Your task to perform on an android device: Open Amazon Image 0: 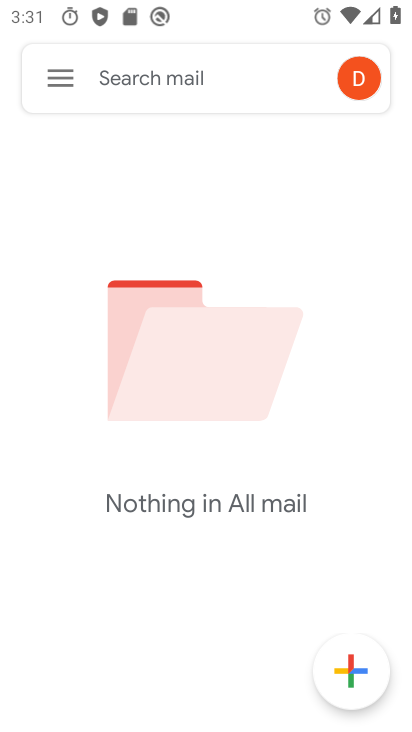
Step 0: press home button
Your task to perform on an android device: Open Amazon Image 1: 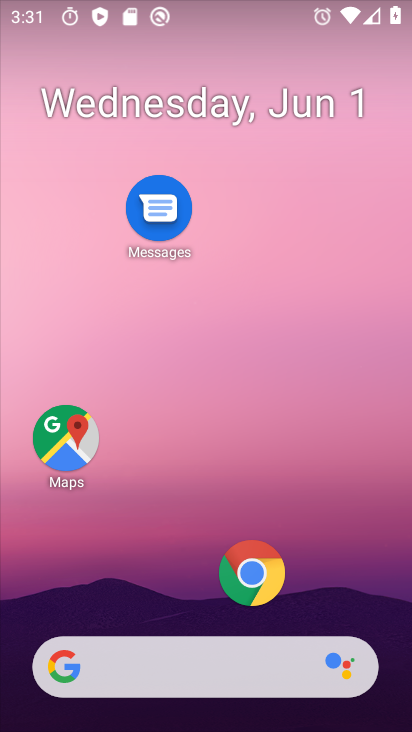
Step 1: click (251, 581)
Your task to perform on an android device: Open Amazon Image 2: 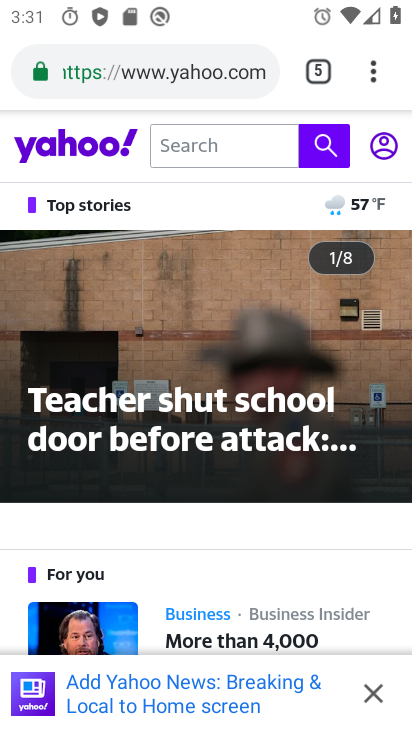
Step 2: click (313, 67)
Your task to perform on an android device: Open Amazon Image 3: 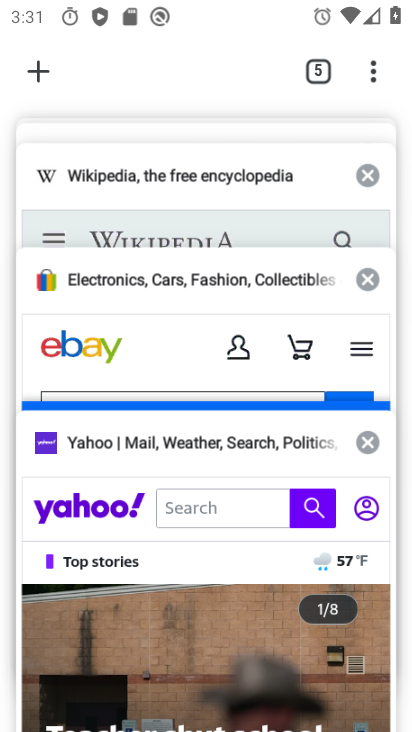
Step 3: click (38, 80)
Your task to perform on an android device: Open Amazon Image 4: 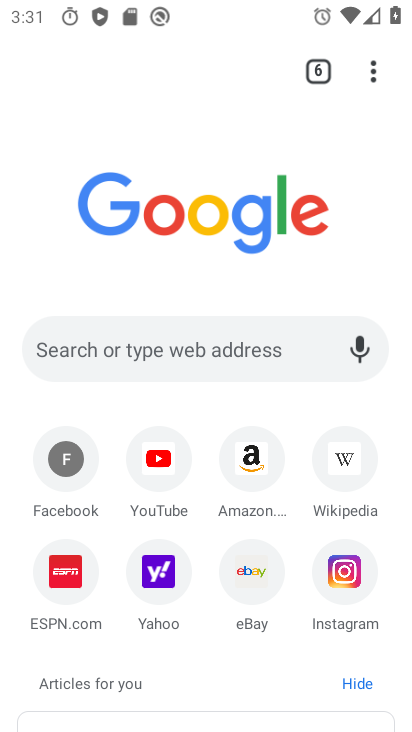
Step 4: click (245, 459)
Your task to perform on an android device: Open Amazon Image 5: 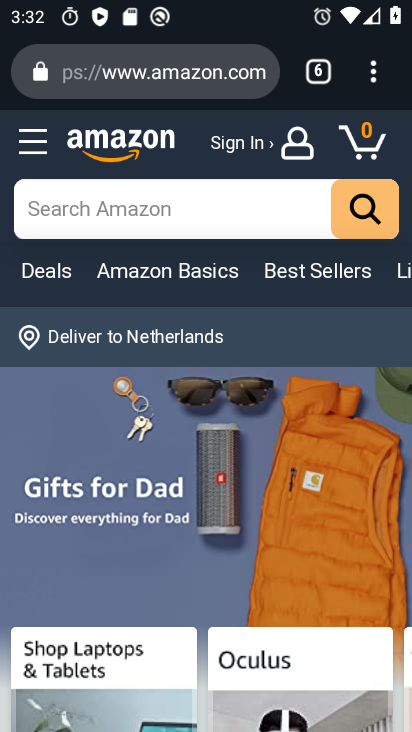
Step 5: task complete